Your task to perform on an android device: What's the latest news in space? Image 0: 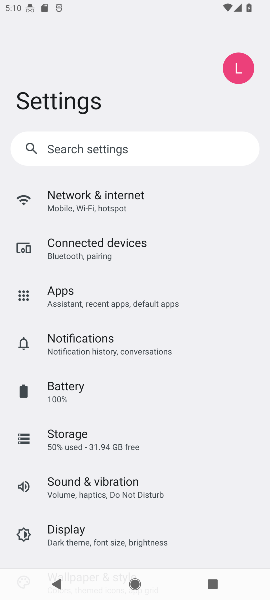
Step 0: press home button
Your task to perform on an android device: What's the latest news in space? Image 1: 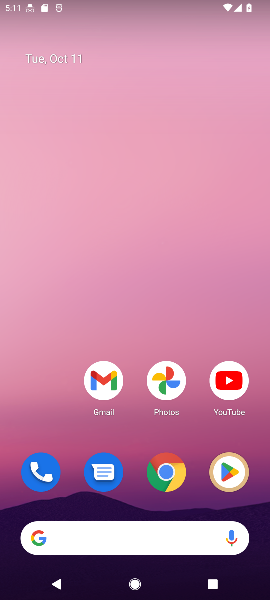
Step 1: click (152, 483)
Your task to perform on an android device: What's the latest news in space? Image 2: 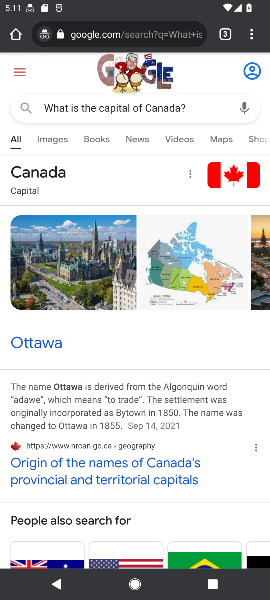
Step 2: click (120, 35)
Your task to perform on an android device: What's the latest news in space? Image 3: 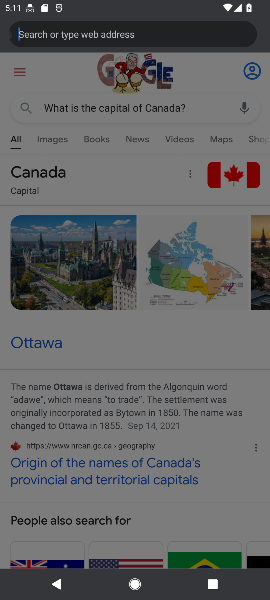
Step 3: click (120, 35)
Your task to perform on an android device: What's the latest news in space? Image 4: 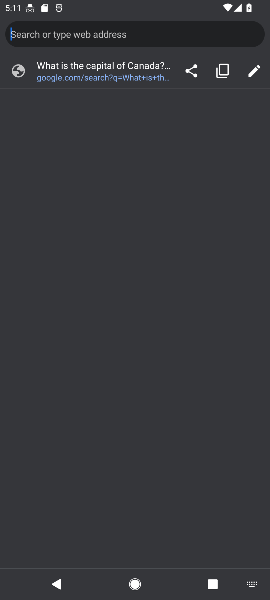
Step 4: click (120, 35)
Your task to perform on an android device: What's the latest news in space? Image 5: 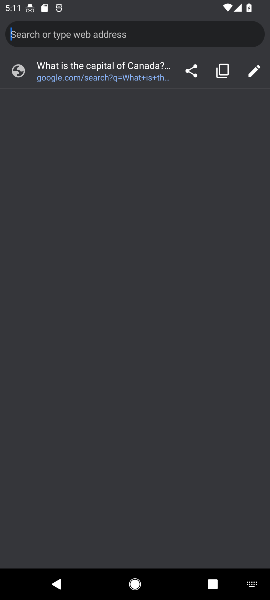
Step 5: type "What's the latest news in space?"
Your task to perform on an android device: What's the latest news in space? Image 6: 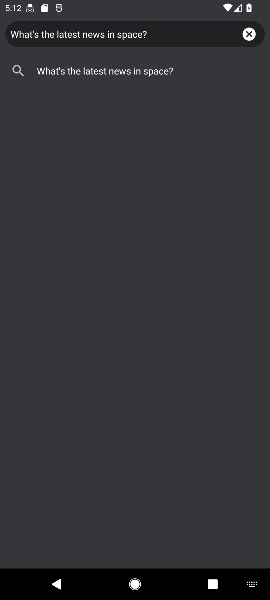
Step 6: click (158, 72)
Your task to perform on an android device: What's the latest news in space? Image 7: 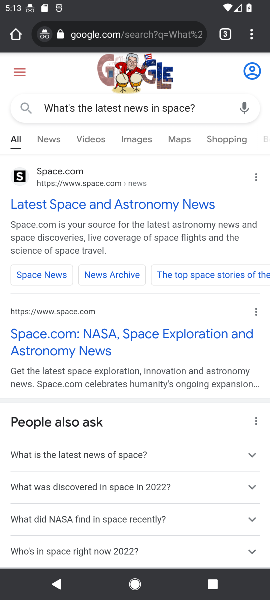
Step 7: click (41, 136)
Your task to perform on an android device: What's the latest news in space? Image 8: 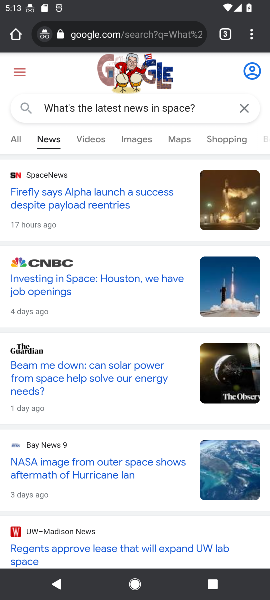
Step 8: task complete